Your task to perform on an android device: open app "Gmail" (install if not already installed) Image 0: 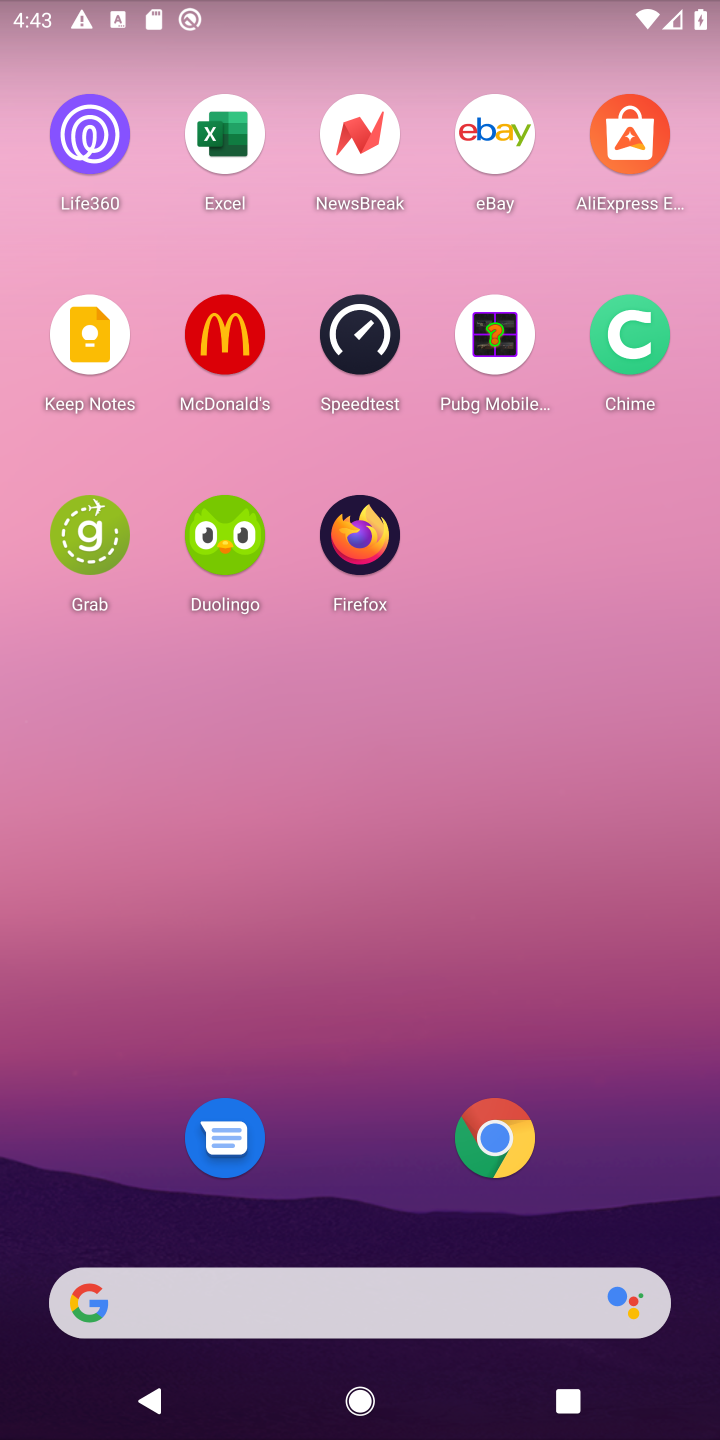
Step 0: drag from (369, 718) to (397, 179)
Your task to perform on an android device: open app "Gmail" (install if not already installed) Image 1: 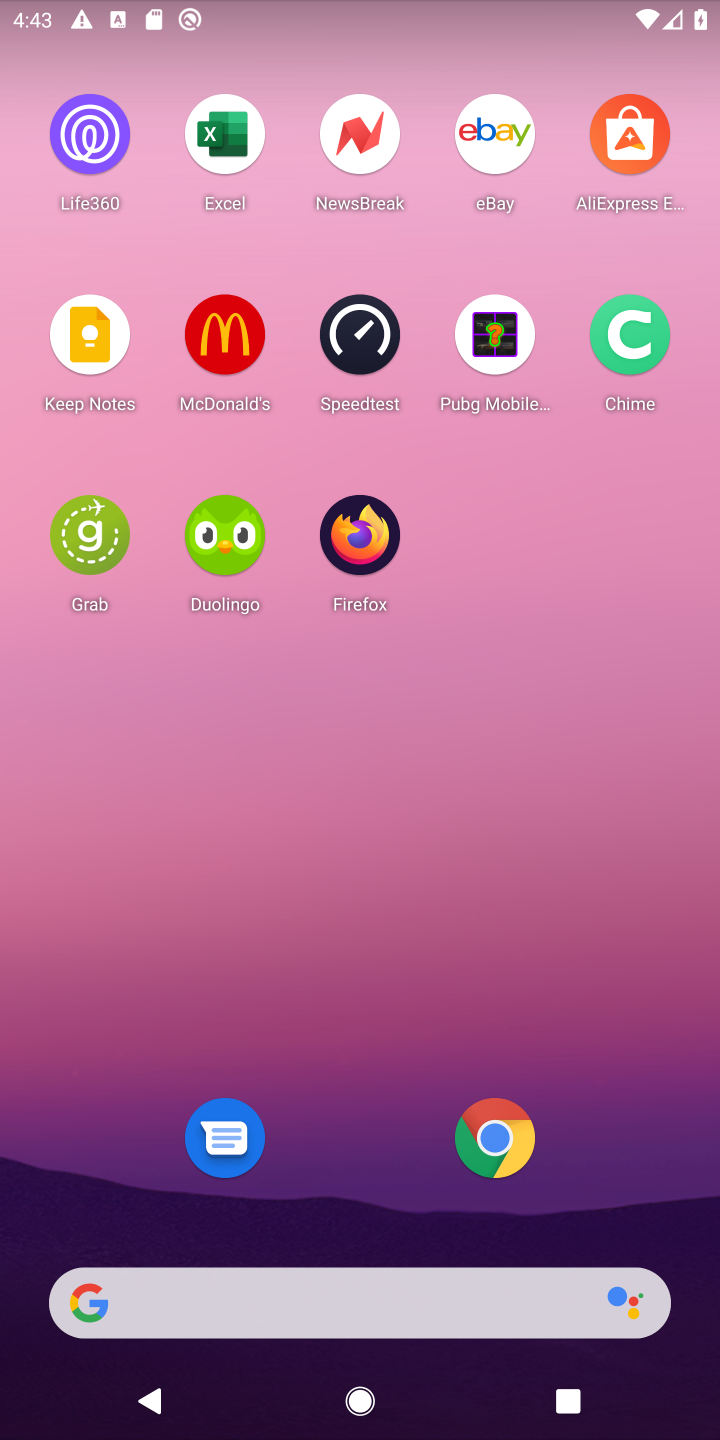
Step 1: drag from (326, 1123) to (279, 124)
Your task to perform on an android device: open app "Gmail" (install if not already installed) Image 2: 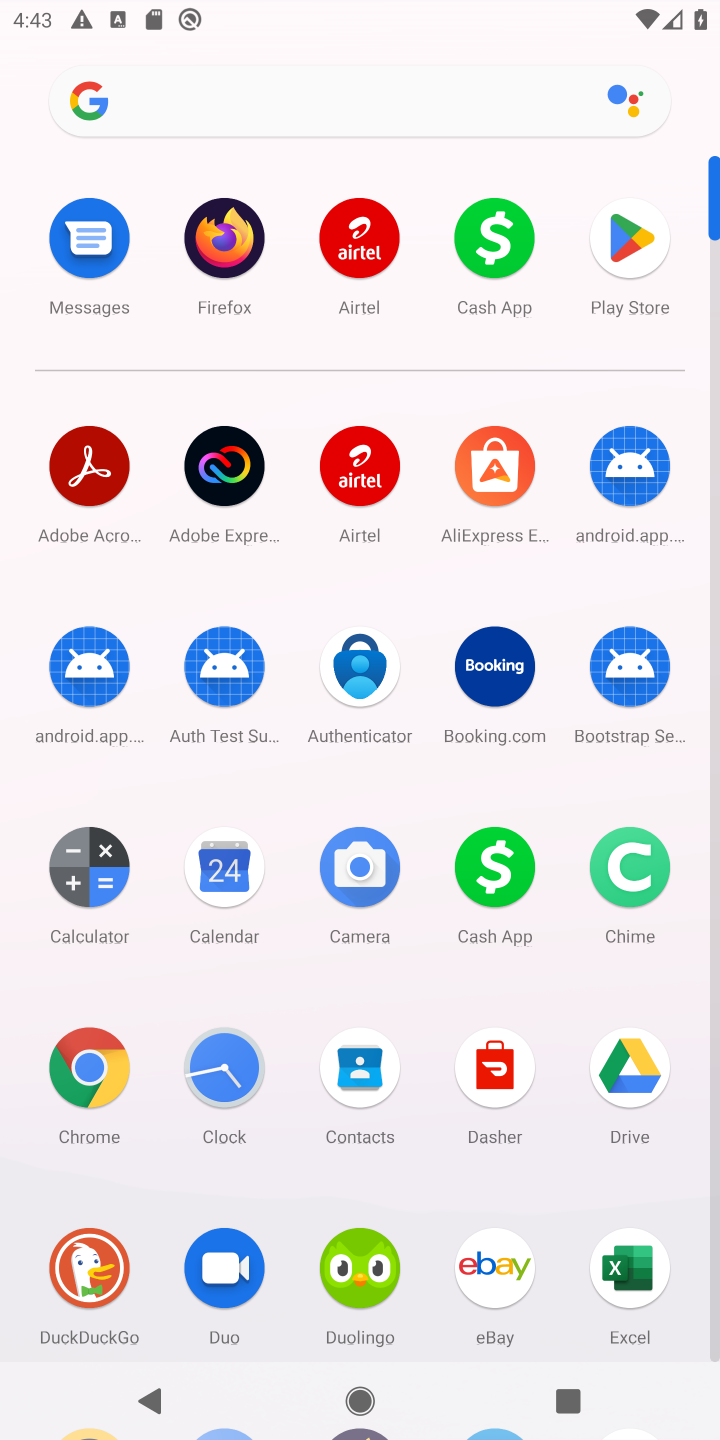
Step 2: drag from (436, 1227) to (446, 473)
Your task to perform on an android device: open app "Gmail" (install if not already installed) Image 3: 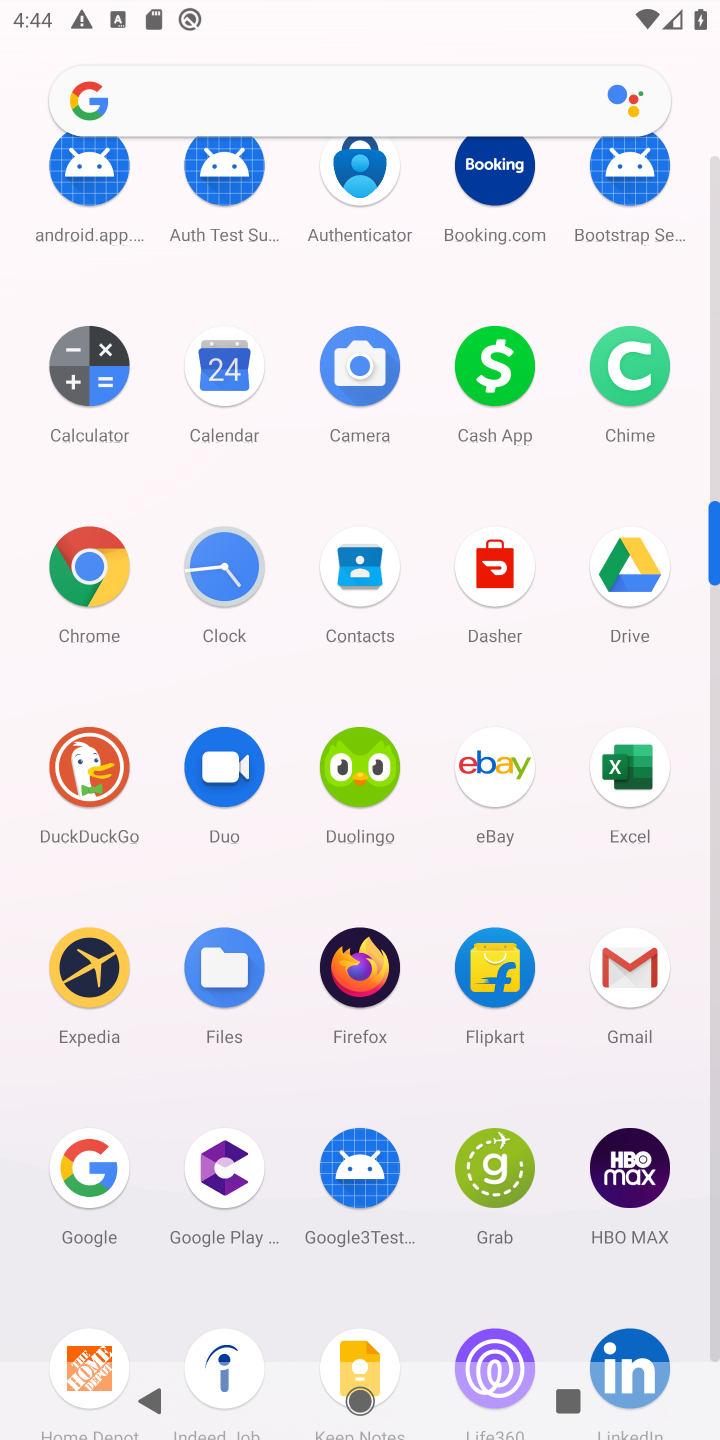
Step 3: click (639, 961)
Your task to perform on an android device: open app "Gmail" (install if not already installed) Image 4: 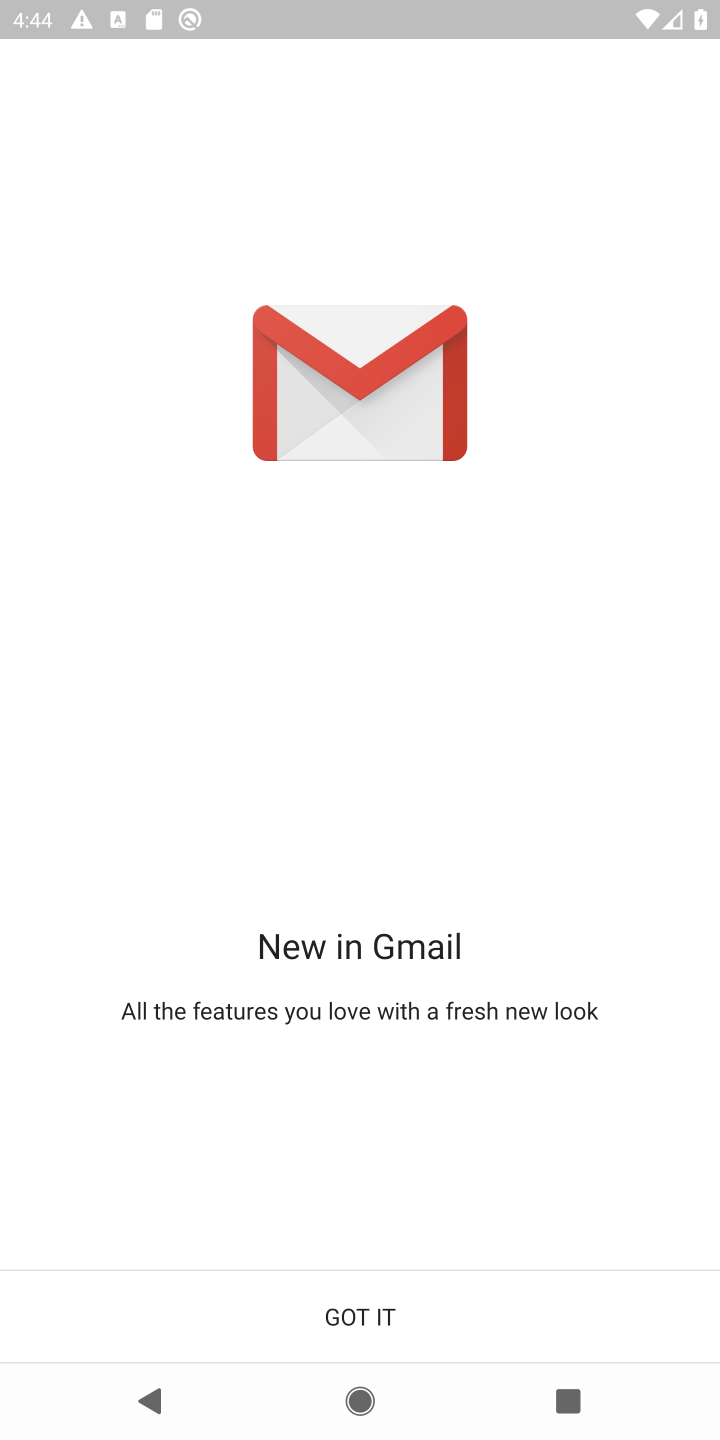
Step 4: click (382, 1304)
Your task to perform on an android device: open app "Gmail" (install if not already installed) Image 5: 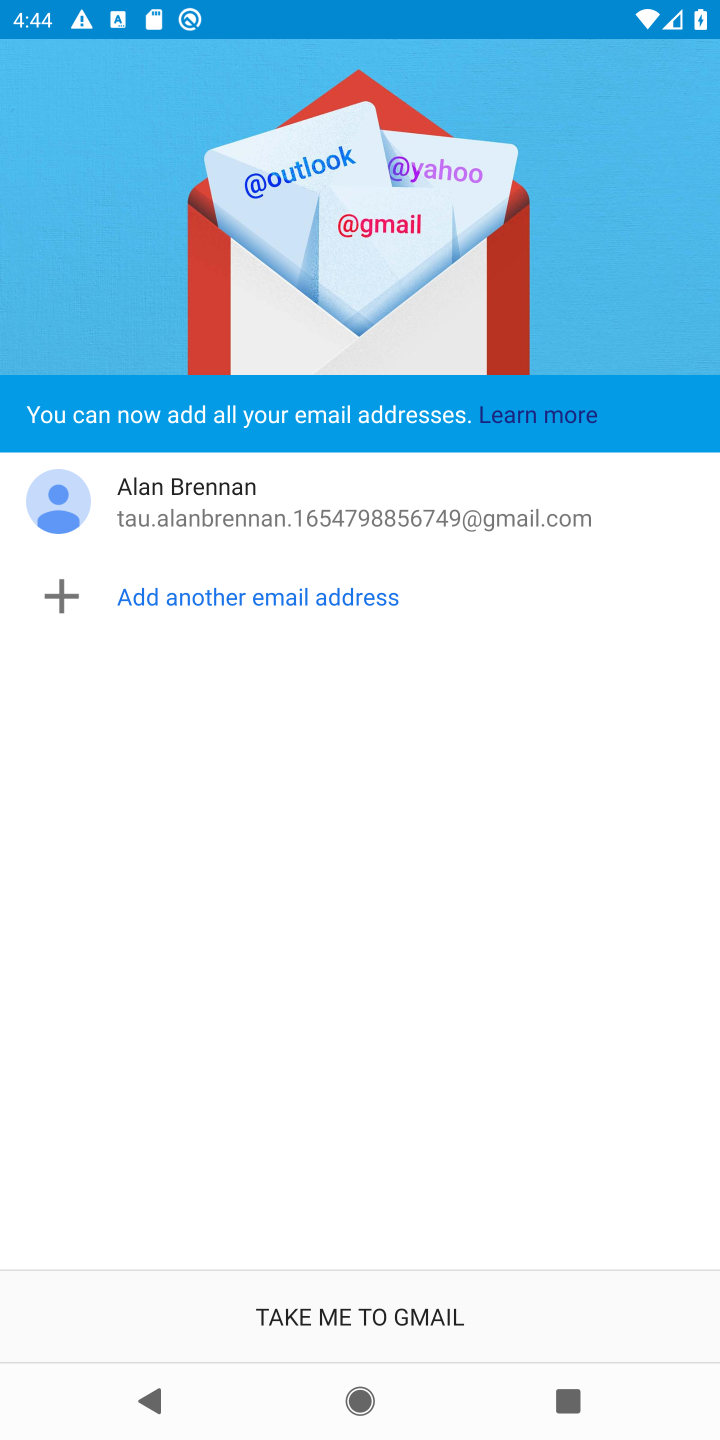
Step 5: task complete